Your task to perform on an android device: Open wifi settings Image 0: 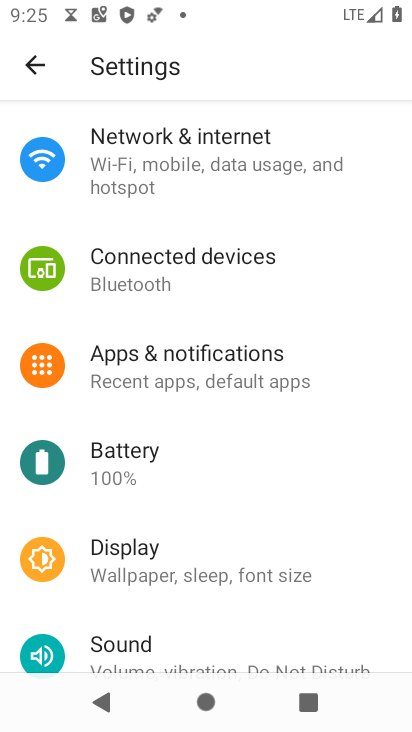
Step 0: press home button
Your task to perform on an android device: Open wifi settings Image 1: 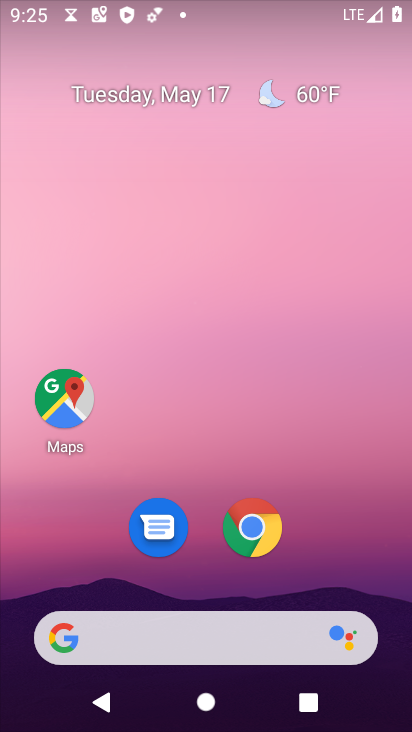
Step 1: drag from (207, 648) to (353, 148)
Your task to perform on an android device: Open wifi settings Image 2: 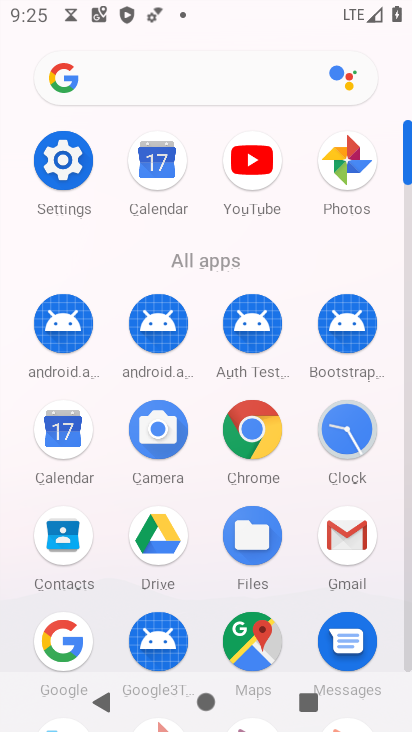
Step 2: click (78, 165)
Your task to perform on an android device: Open wifi settings Image 3: 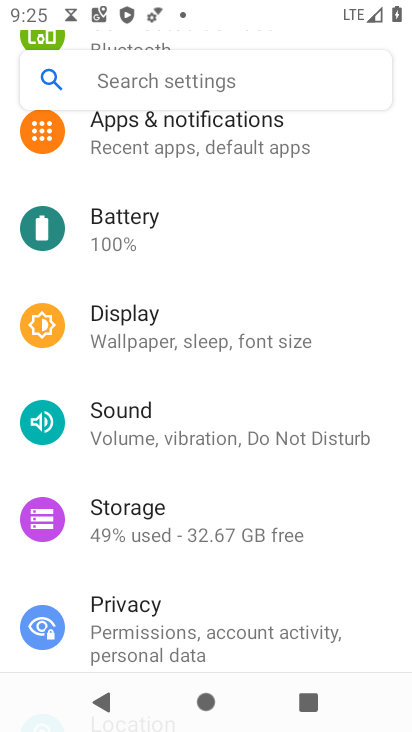
Step 3: drag from (248, 214) to (211, 526)
Your task to perform on an android device: Open wifi settings Image 4: 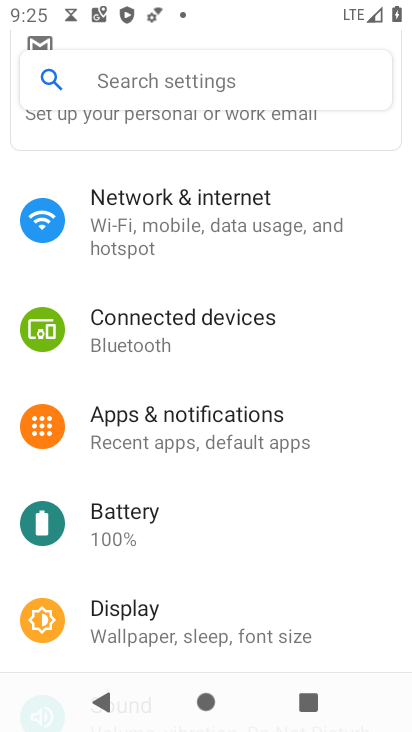
Step 4: click (223, 214)
Your task to perform on an android device: Open wifi settings Image 5: 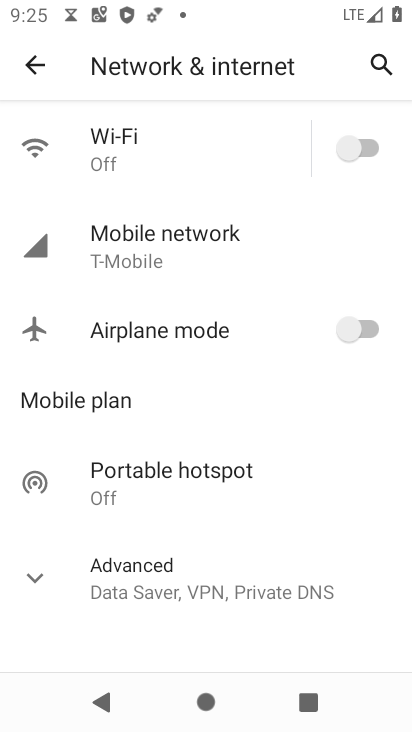
Step 5: click (130, 154)
Your task to perform on an android device: Open wifi settings Image 6: 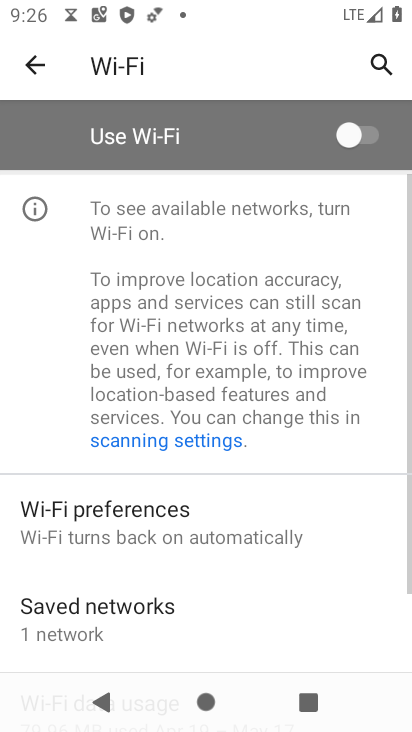
Step 6: task complete